Your task to perform on an android device: What's the news today? Image 0: 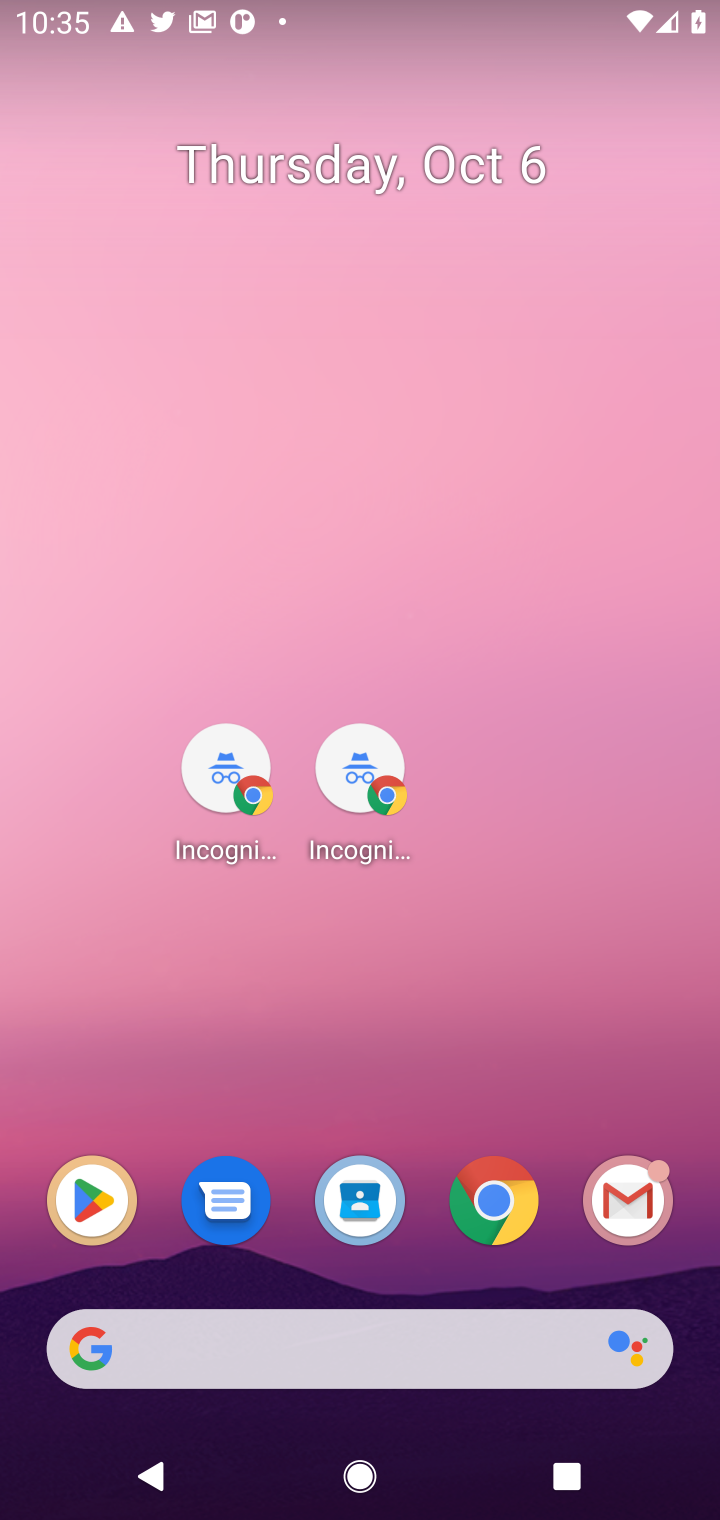
Step 0: click (470, 1192)
Your task to perform on an android device: What's the news today? Image 1: 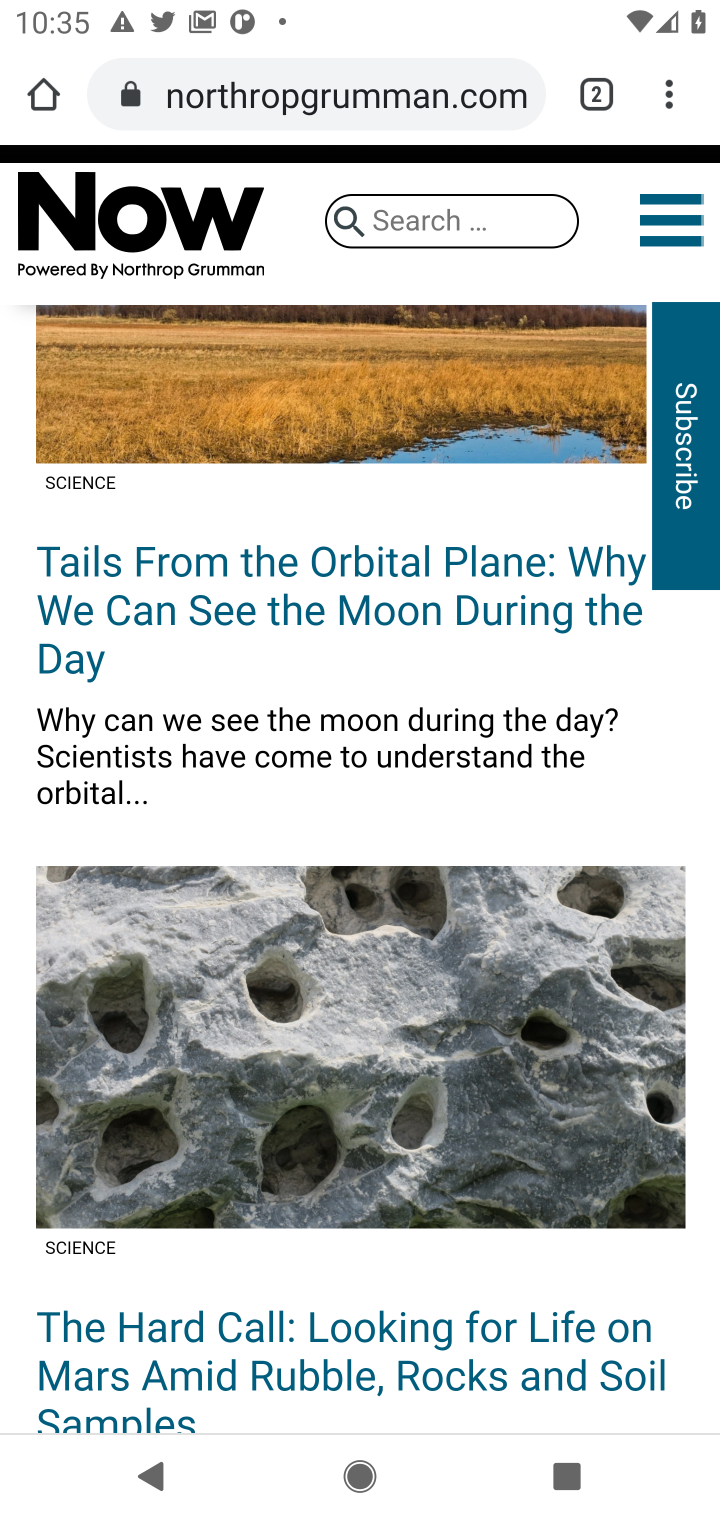
Step 1: click (356, 100)
Your task to perform on an android device: What's the news today? Image 2: 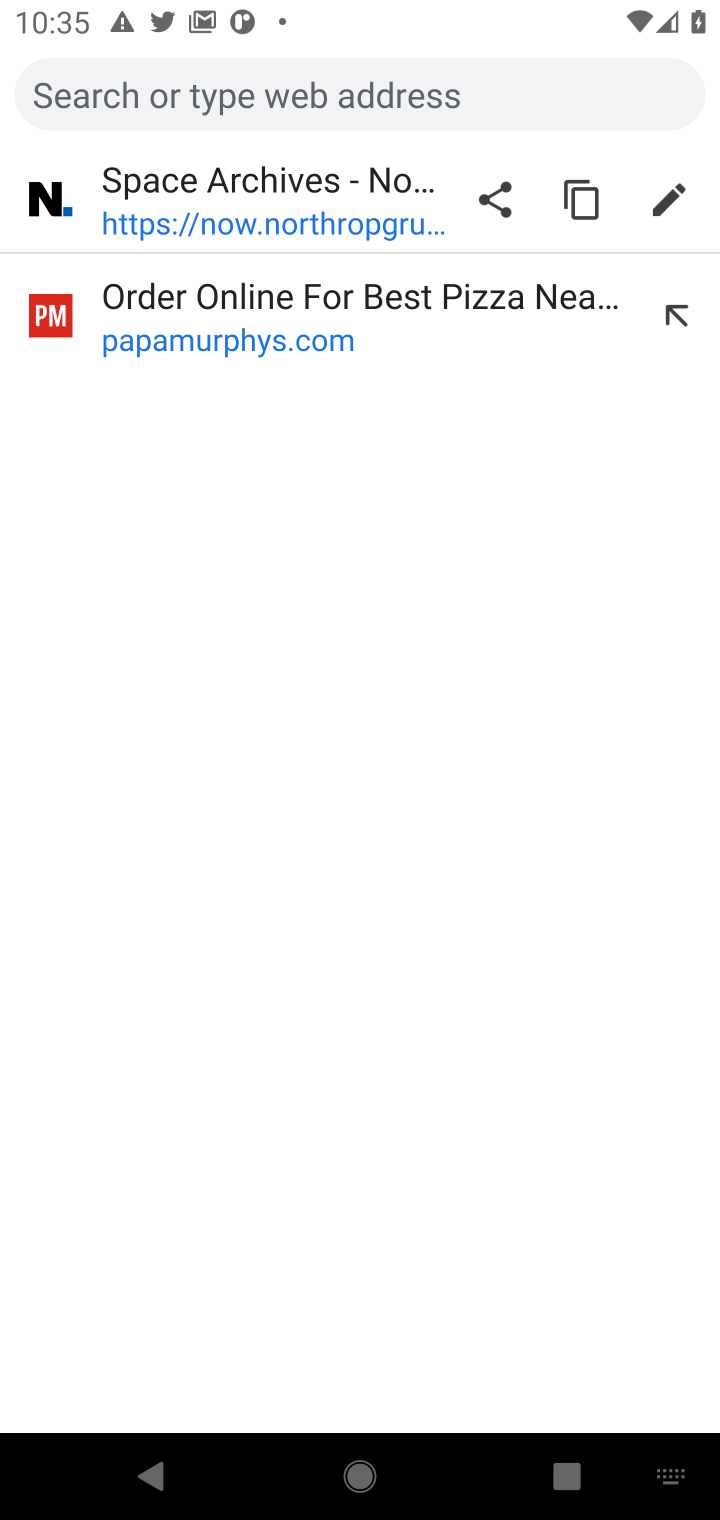
Step 2: type "whats the news today"
Your task to perform on an android device: What's the news today? Image 3: 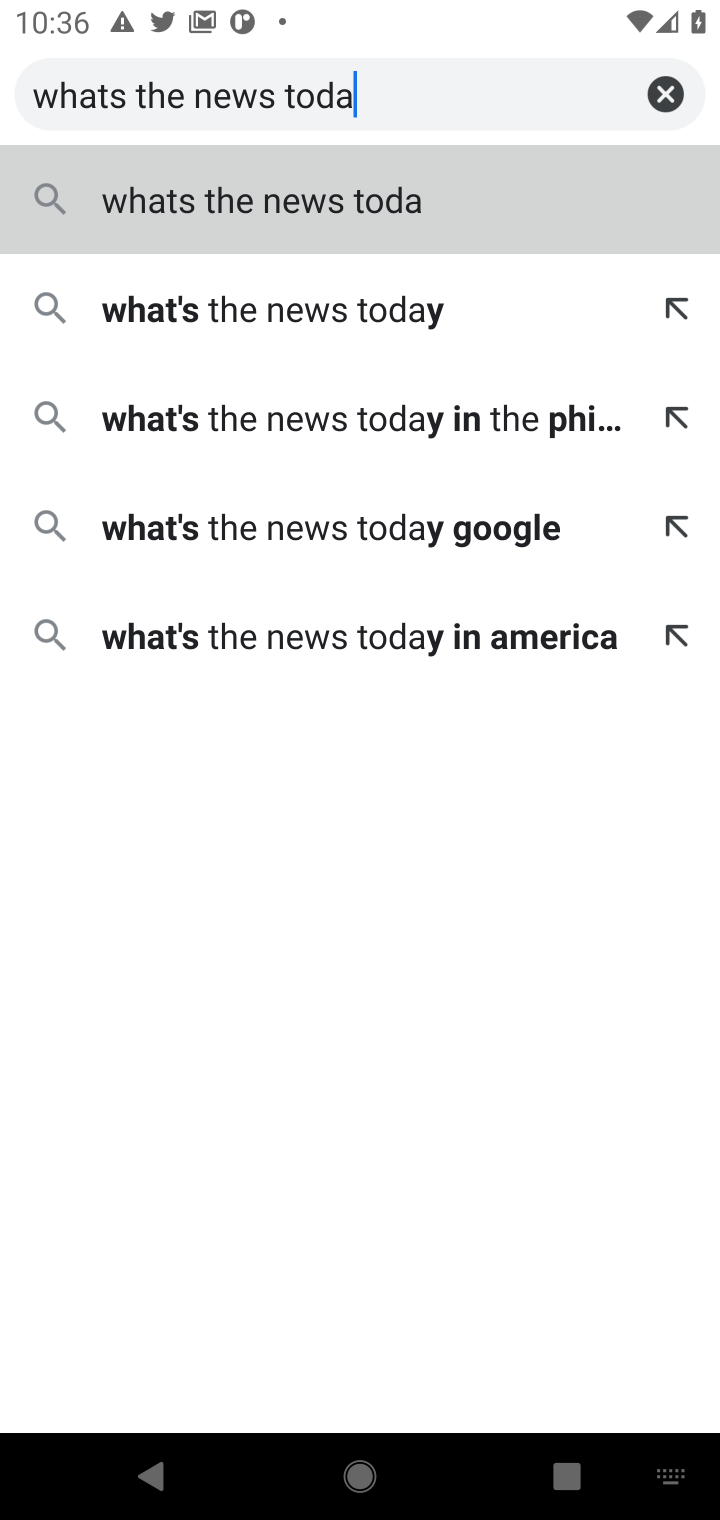
Step 3: click (347, 302)
Your task to perform on an android device: What's the news today? Image 4: 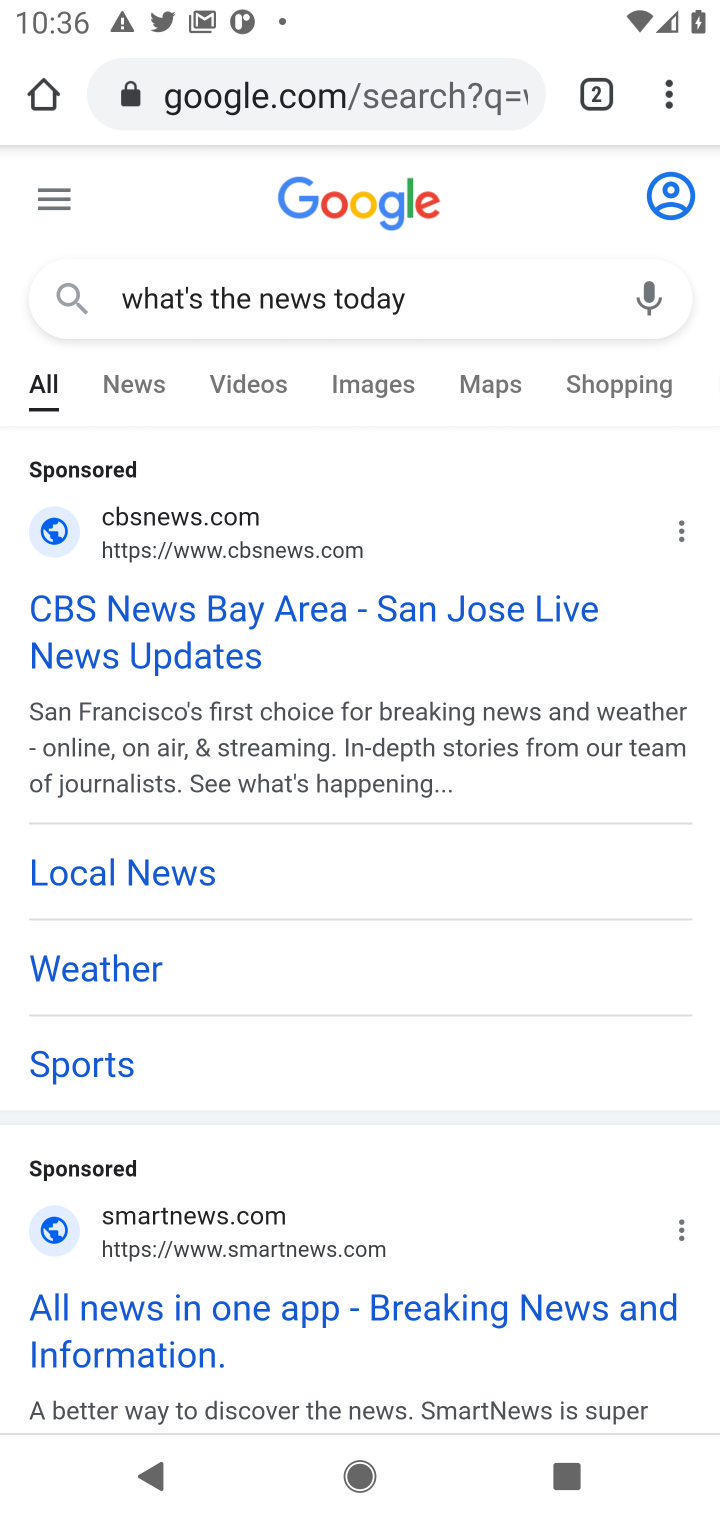
Step 4: drag from (442, 977) to (458, 461)
Your task to perform on an android device: What's the news today? Image 5: 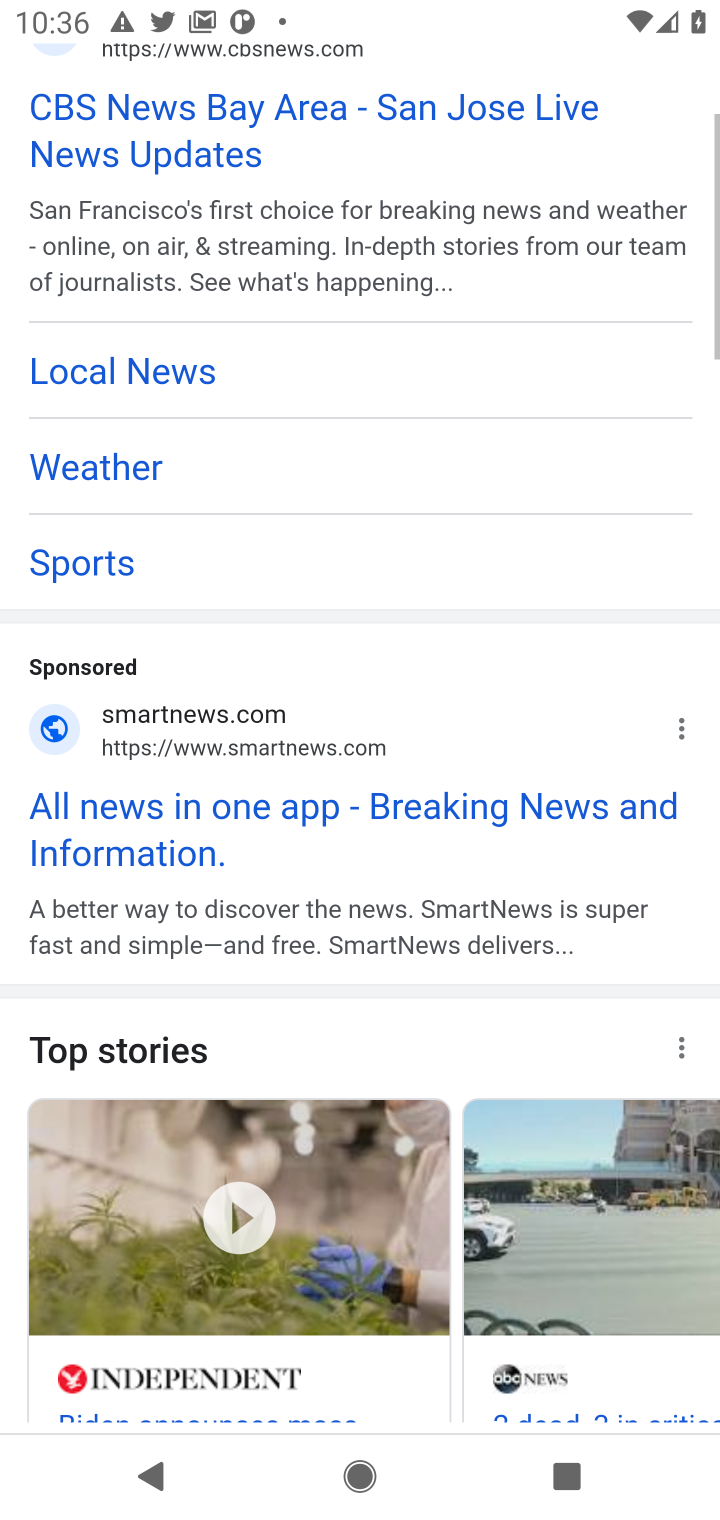
Step 5: drag from (450, 1131) to (480, 684)
Your task to perform on an android device: What's the news today? Image 6: 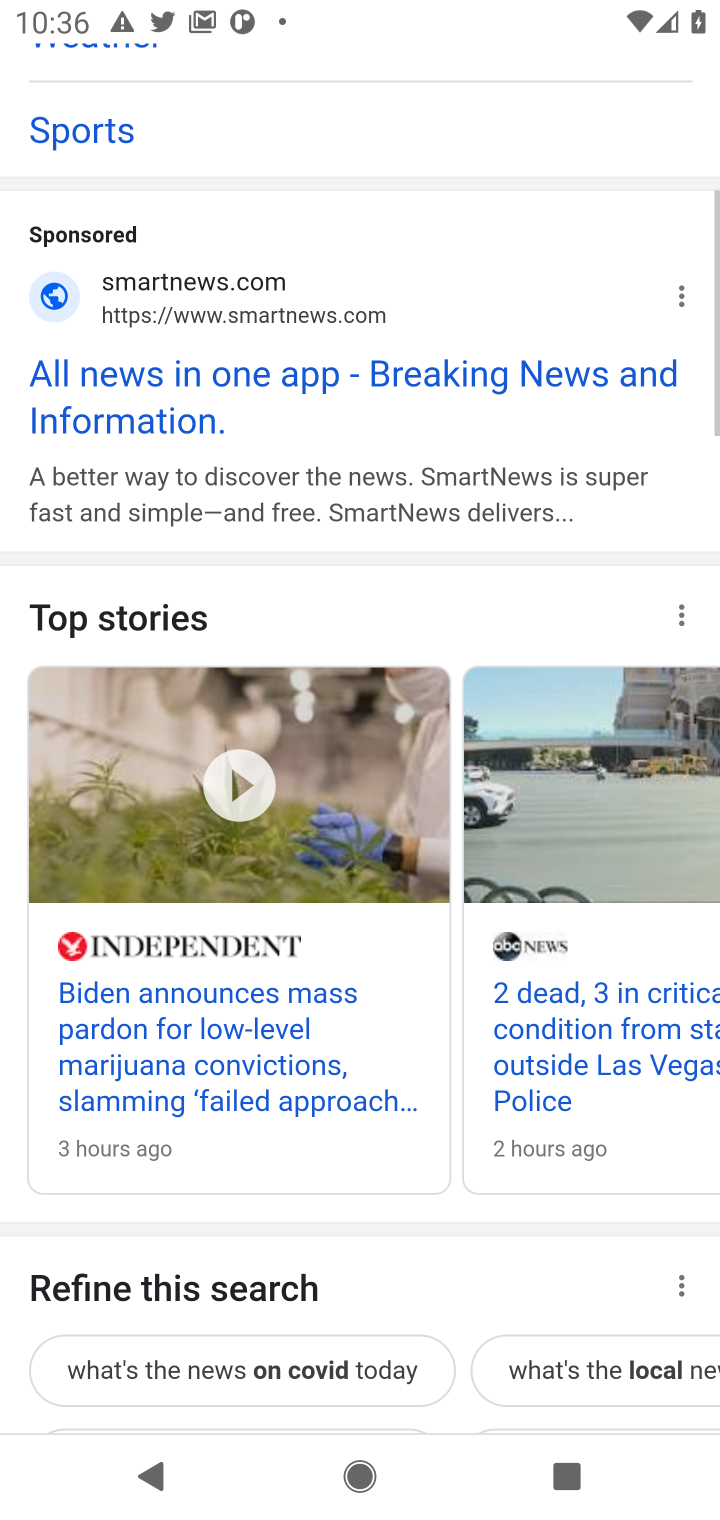
Step 6: drag from (543, 1266) to (523, 725)
Your task to perform on an android device: What's the news today? Image 7: 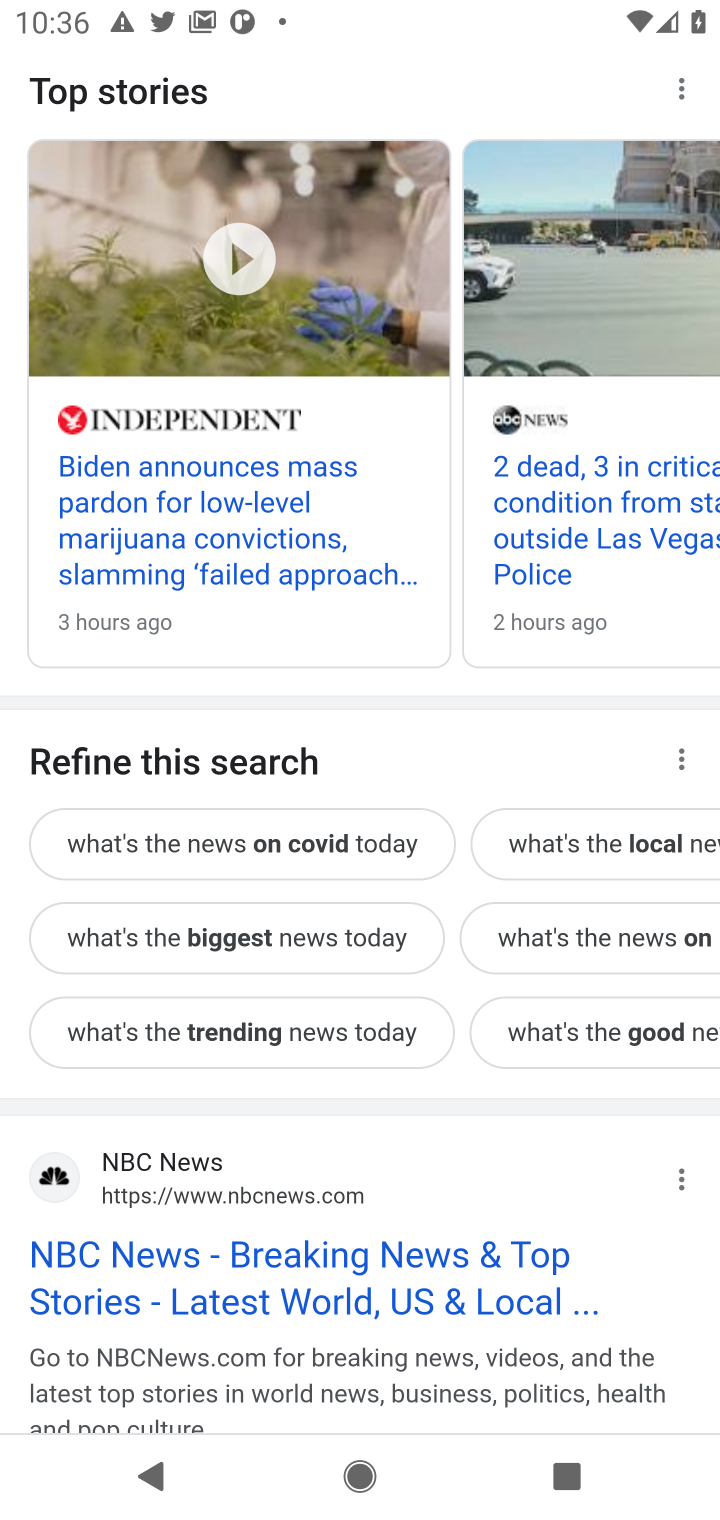
Step 7: drag from (328, 1360) to (348, 991)
Your task to perform on an android device: What's the news today? Image 8: 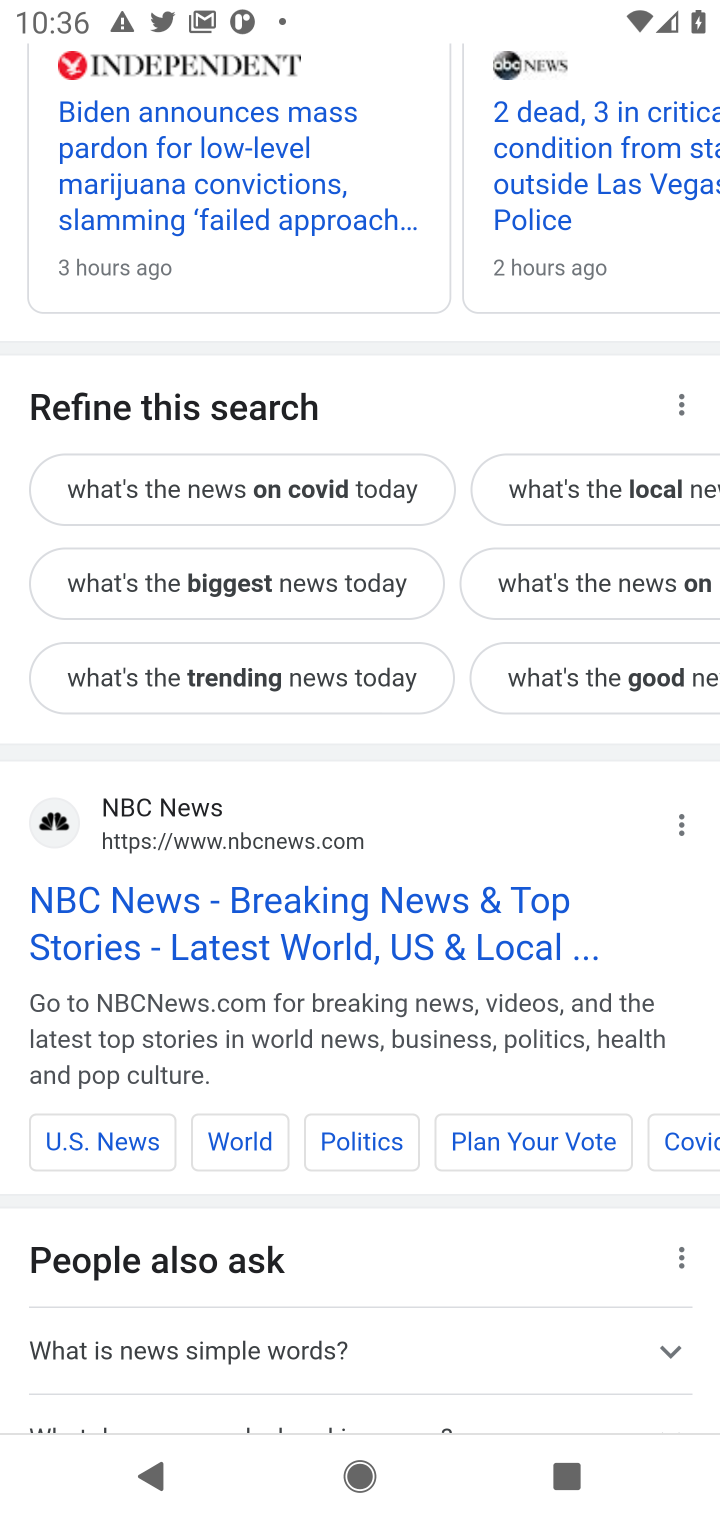
Step 8: drag from (306, 1086) to (368, 620)
Your task to perform on an android device: What's the news today? Image 9: 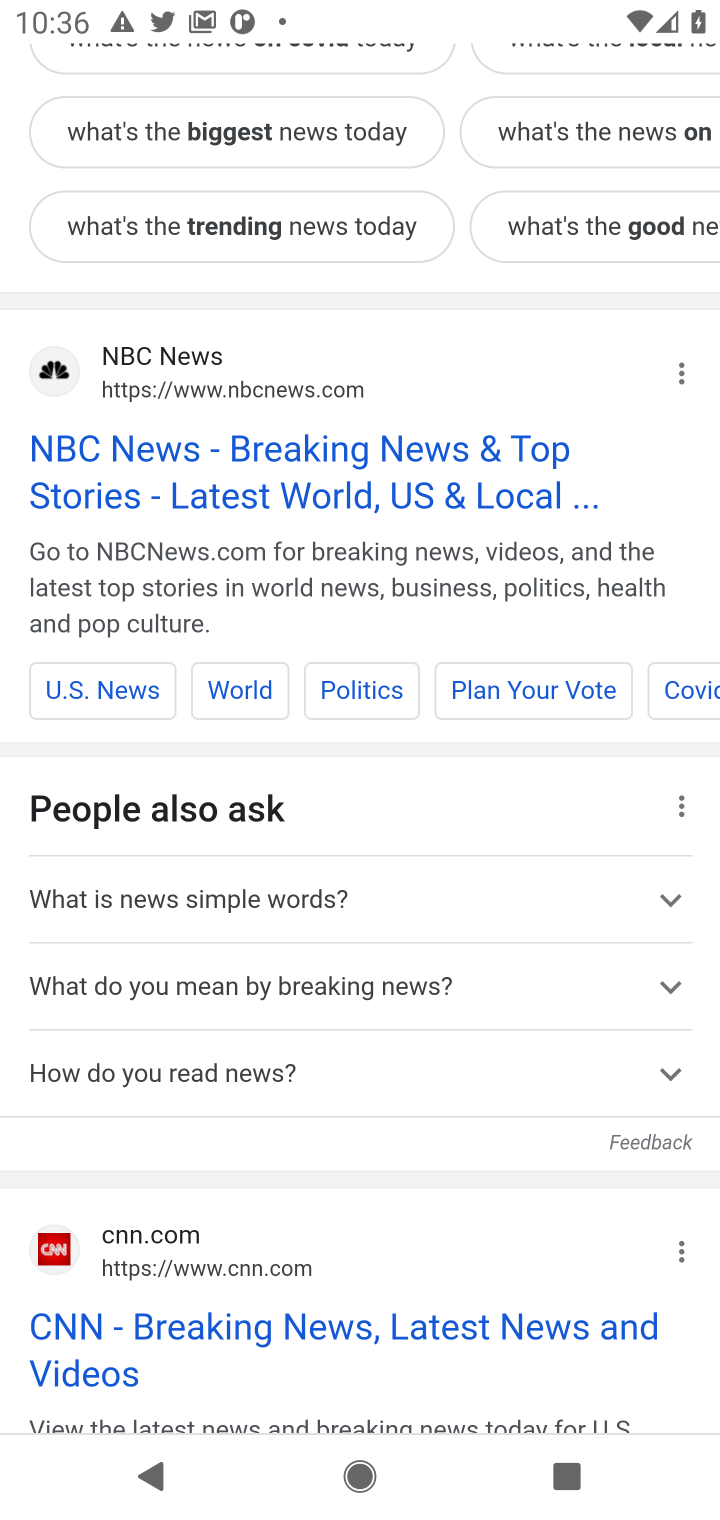
Step 9: drag from (312, 1189) to (364, 667)
Your task to perform on an android device: What's the news today? Image 10: 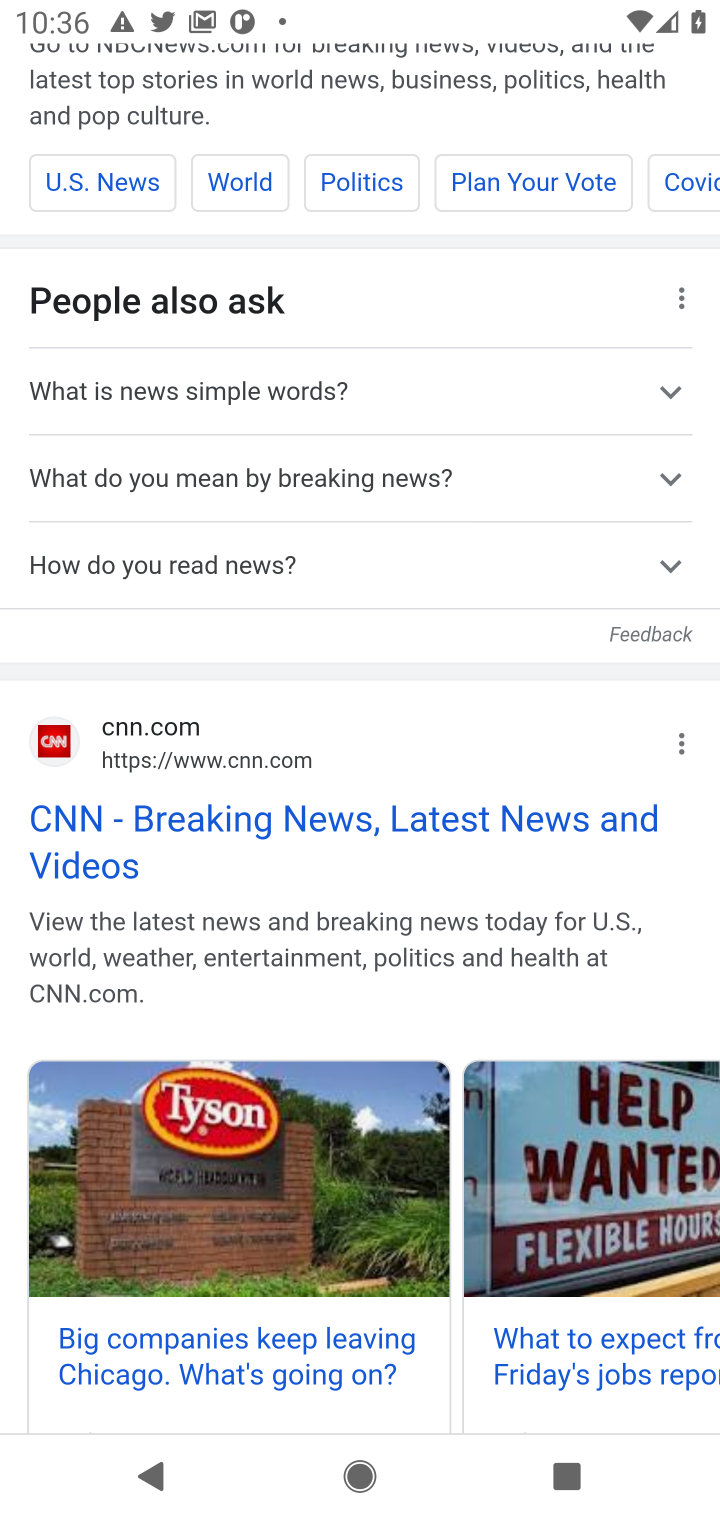
Step 10: drag from (416, 1001) to (416, 537)
Your task to perform on an android device: What's the news today? Image 11: 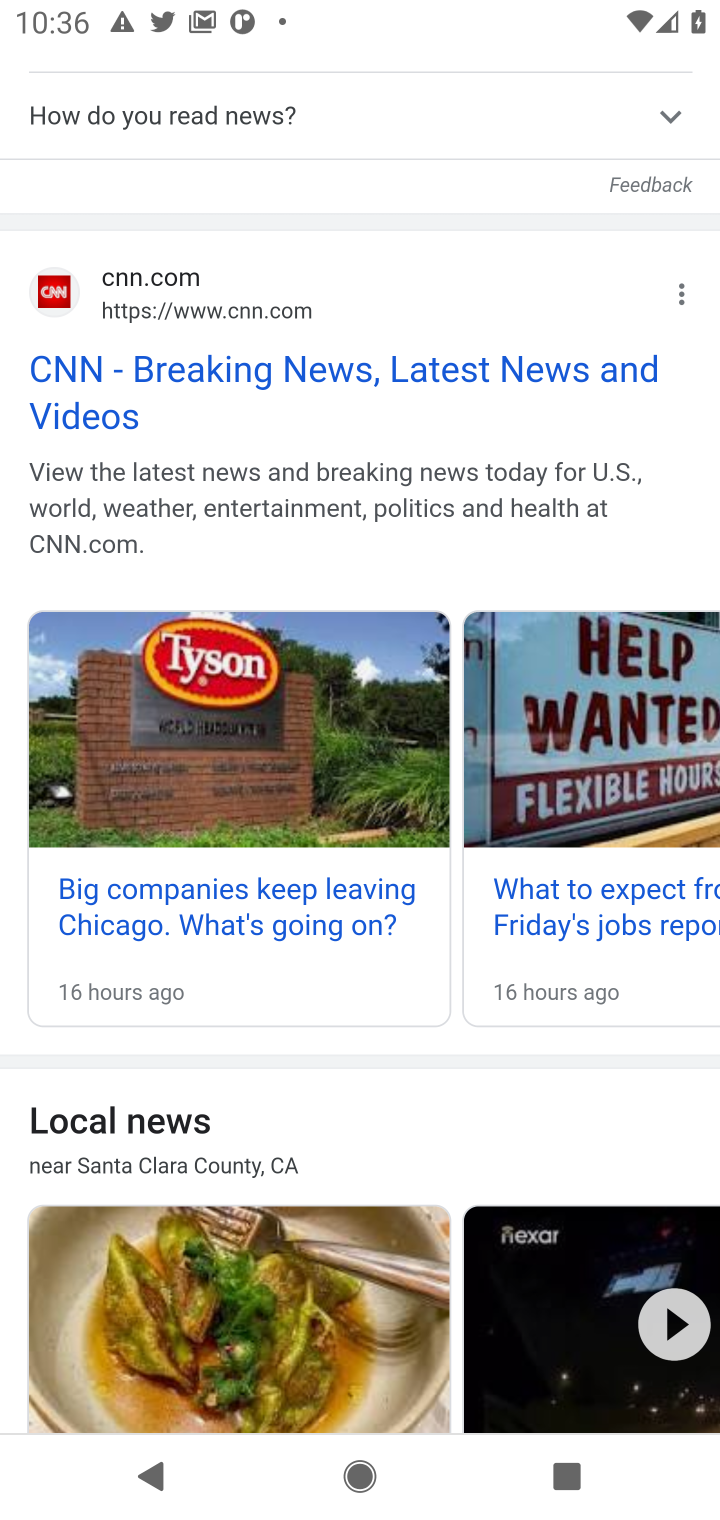
Step 11: drag from (414, 942) to (443, 587)
Your task to perform on an android device: What's the news today? Image 12: 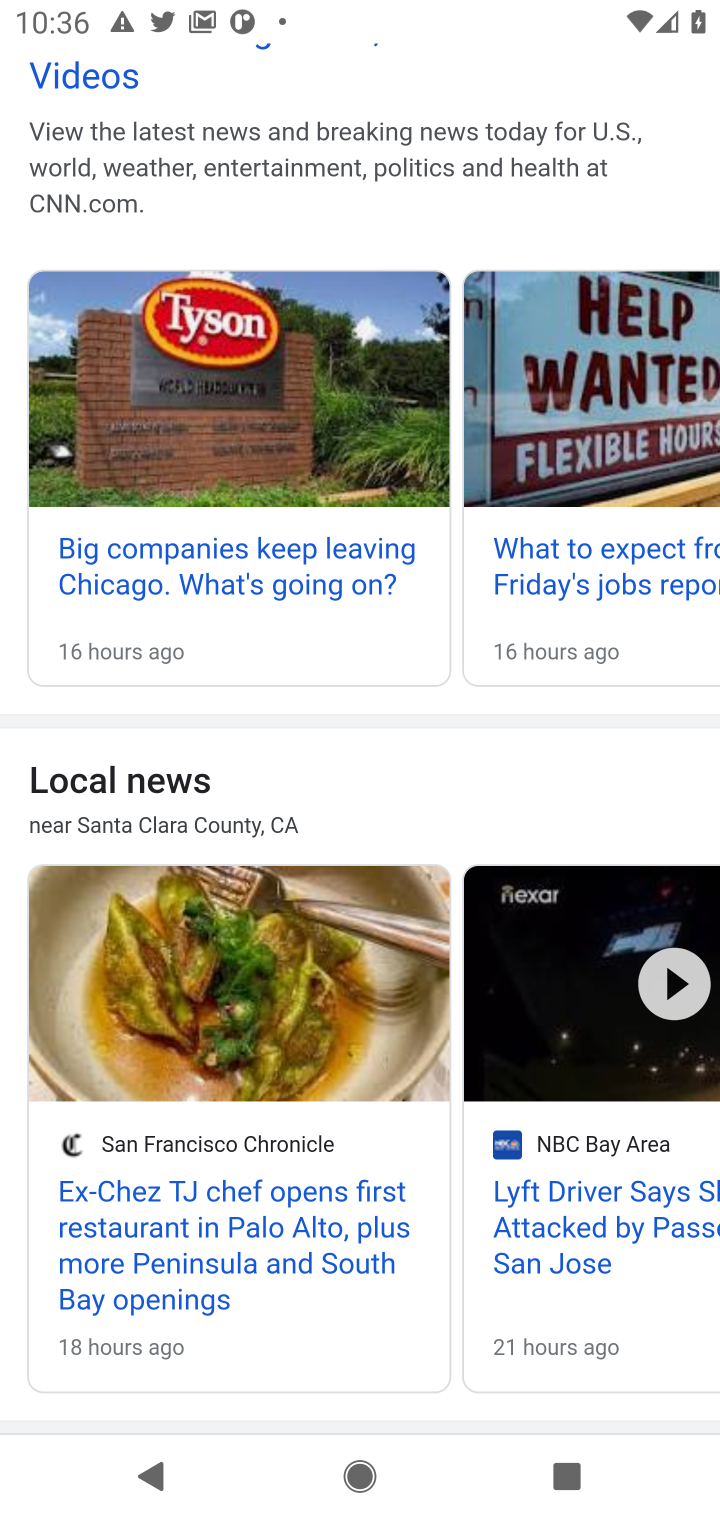
Step 12: drag from (397, 1134) to (410, 627)
Your task to perform on an android device: What's the news today? Image 13: 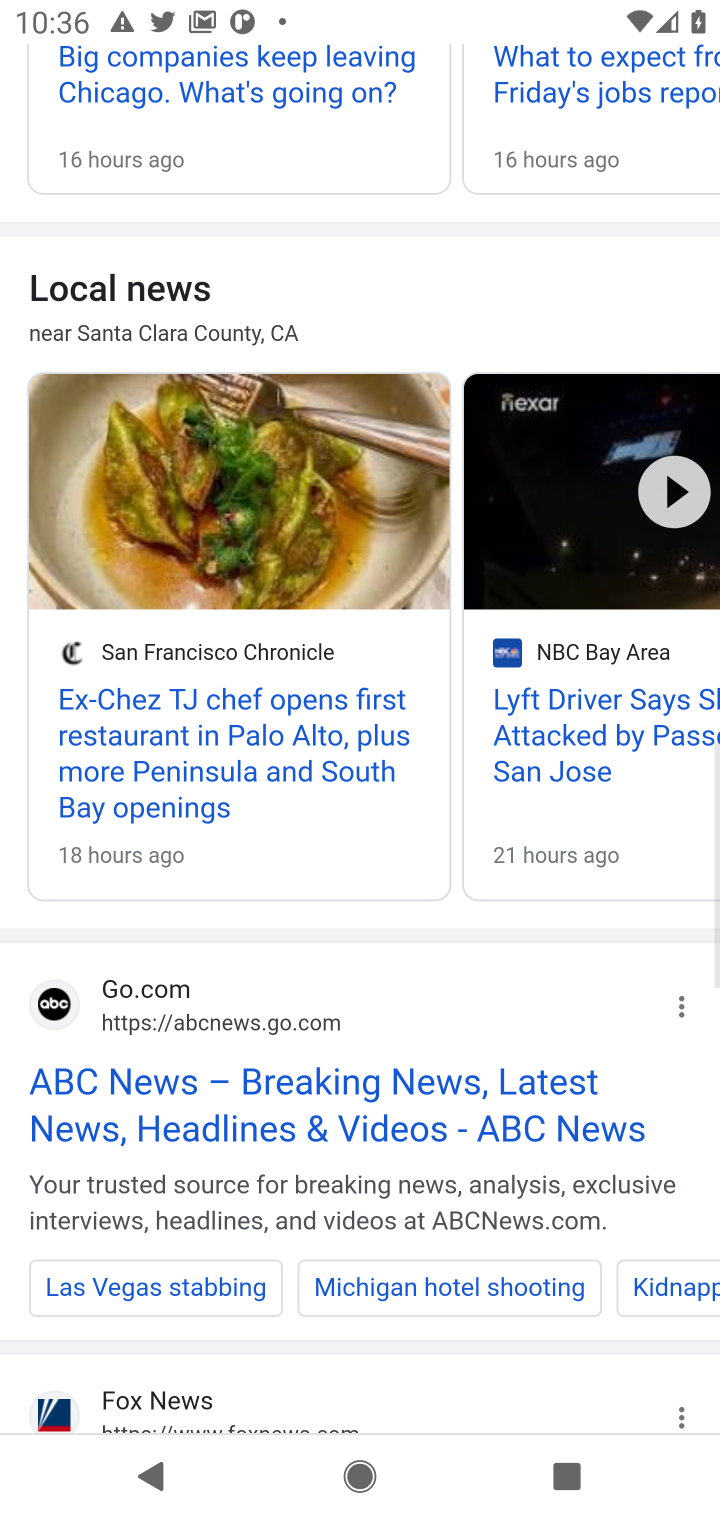
Step 13: drag from (356, 1092) to (392, 782)
Your task to perform on an android device: What's the news today? Image 14: 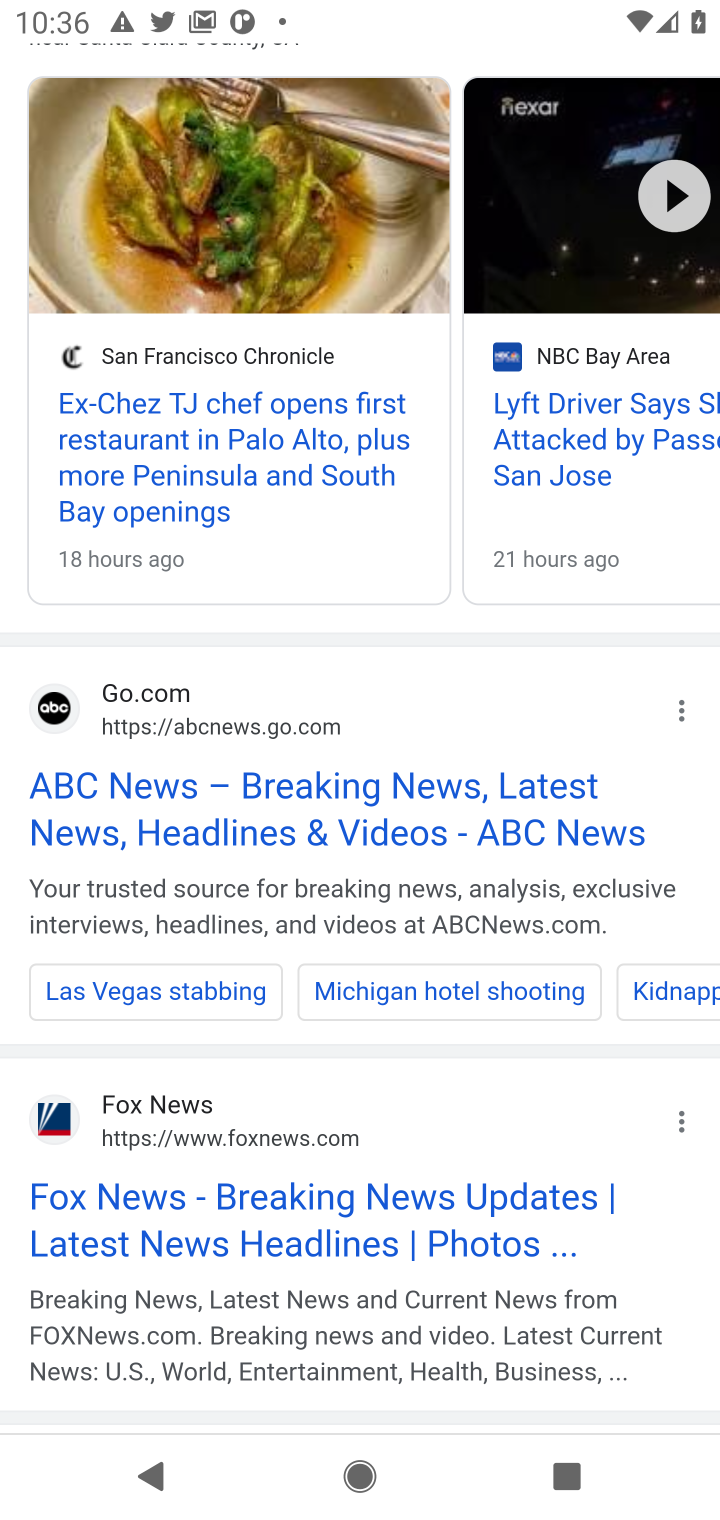
Step 14: click (280, 792)
Your task to perform on an android device: What's the news today? Image 15: 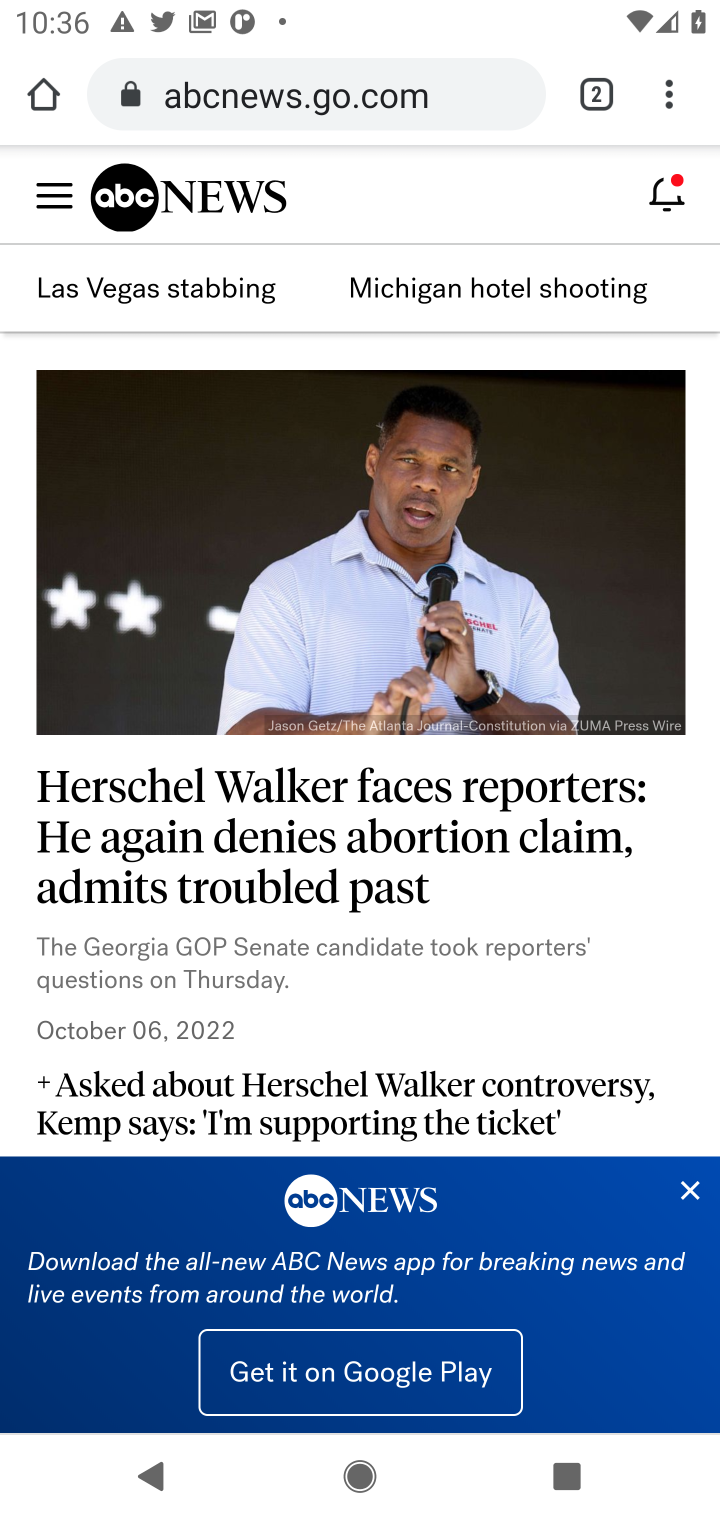
Step 15: drag from (499, 1031) to (544, 770)
Your task to perform on an android device: What's the news today? Image 16: 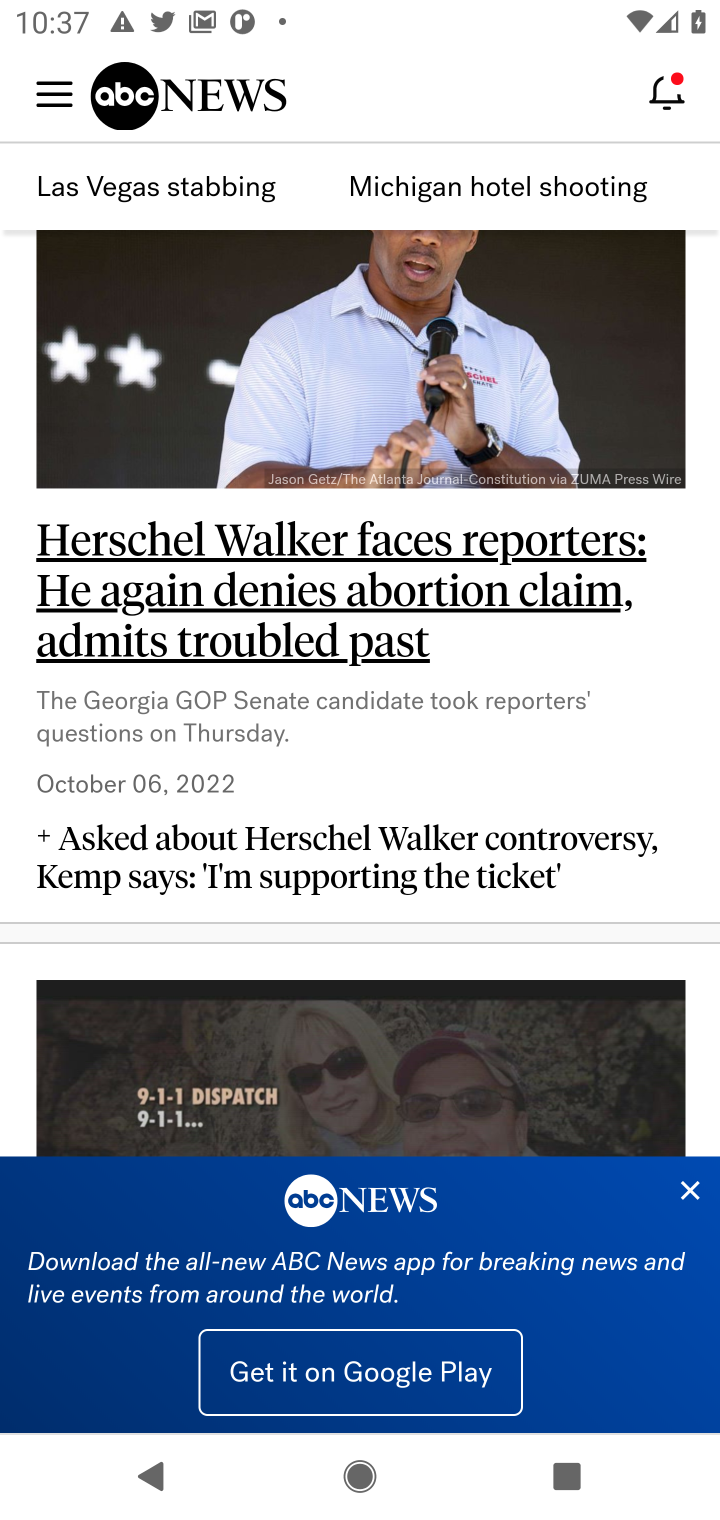
Step 16: click (693, 1188)
Your task to perform on an android device: What's the news today? Image 17: 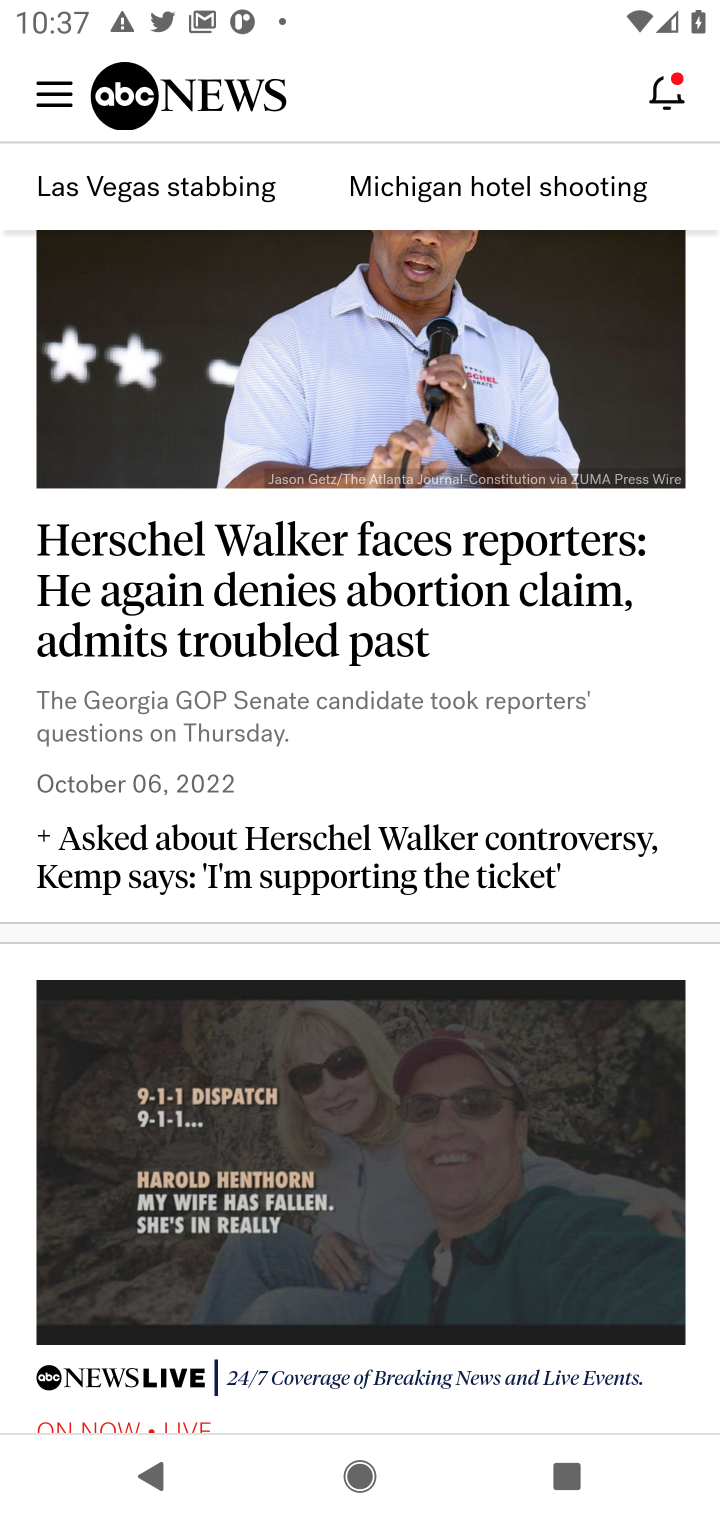
Step 17: task complete